Your task to perform on an android device: Go to wifi settings Image 0: 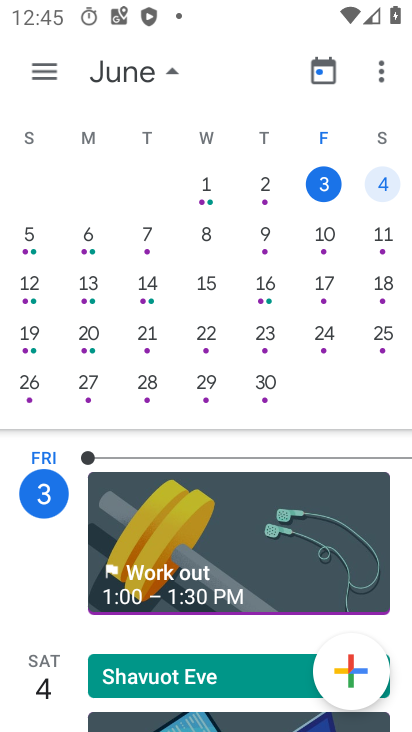
Step 0: press home button
Your task to perform on an android device: Go to wifi settings Image 1: 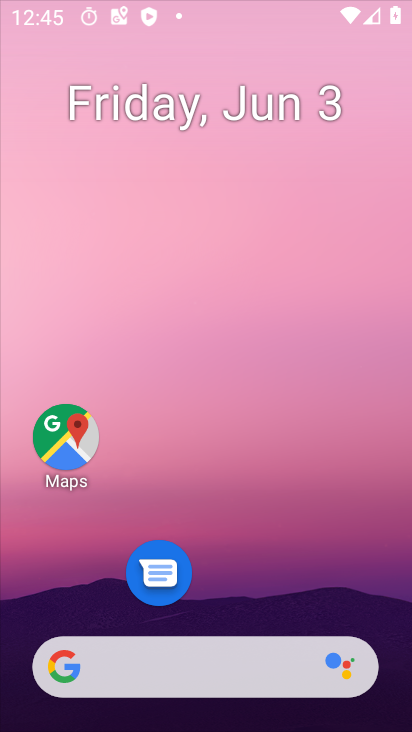
Step 1: drag from (227, 680) to (197, 151)
Your task to perform on an android device: Go to wifi settings Image 2: 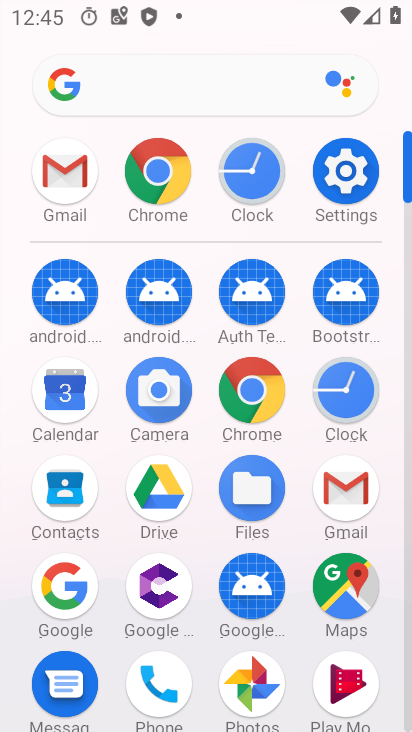
Step 2: click (358, 180)
Your task to perform on an android device: Go to wifi settings Image 3: 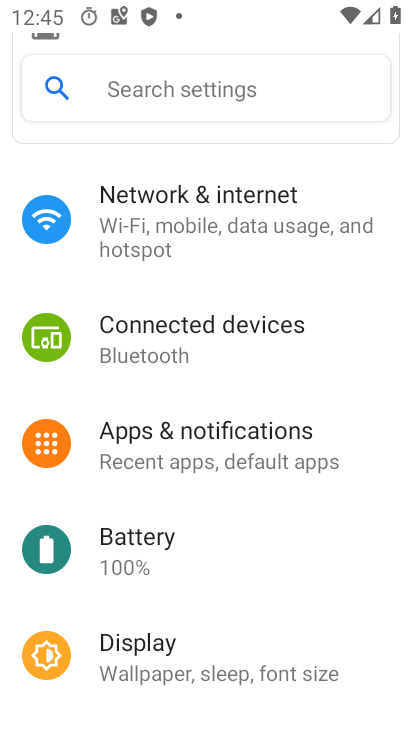
Step 3: click (206, 220)
Your task to perform on an android device: Go to wifi settings Image 4: 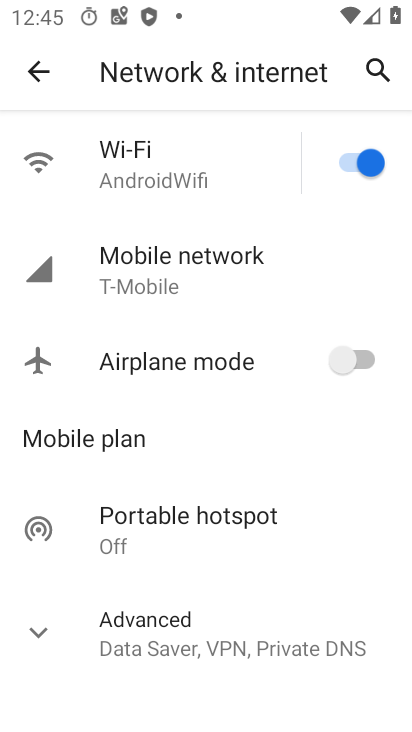
Step 4: click (141, 158)
Your task to perform on an android device: Go to wifi settings Image 5: 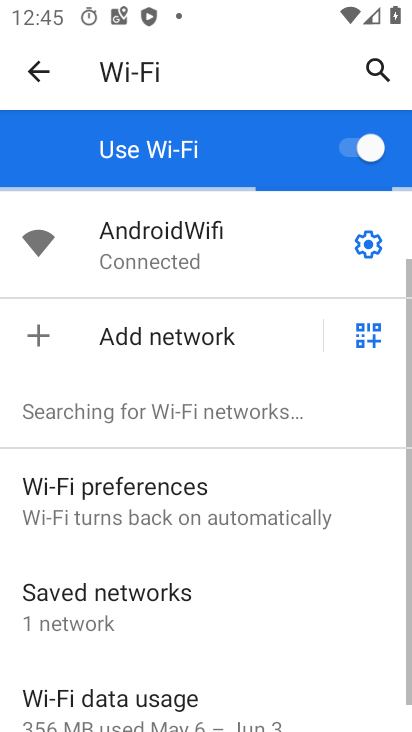
Step 5: task complete